Your task to perform on an android device: Open CNN.com Image 0: 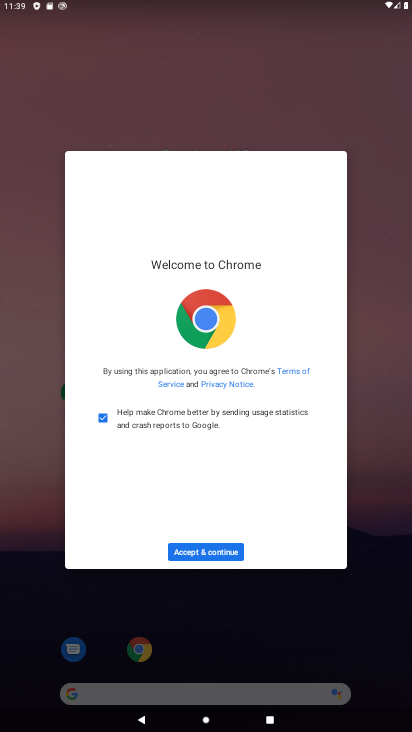
Step 0: click (197, 550)
Your task to perform on an android device: Open CNN.com Image 1: 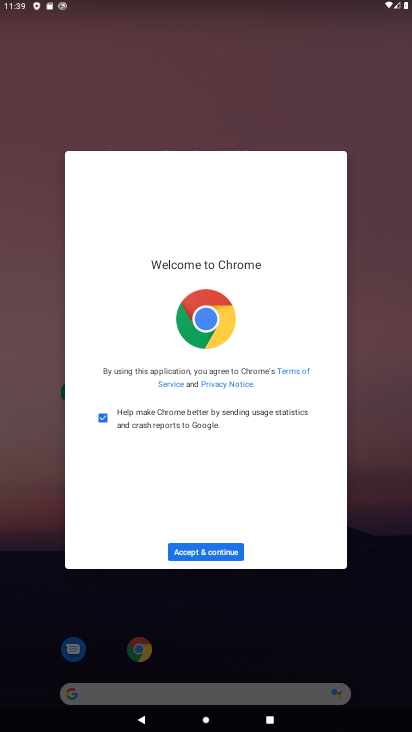
Step 1: click (199, 548)
Your task to perform on an android device: Open CNN.com Image 2: 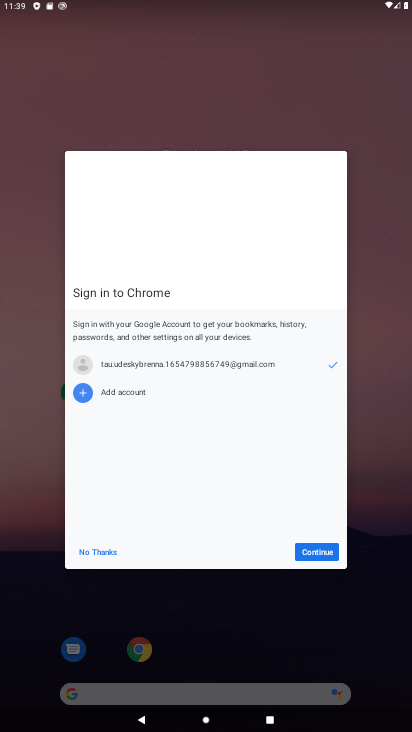
Step 2: click (104, 541)
Your task to perform on an android device: Open CNN.com Image 3: 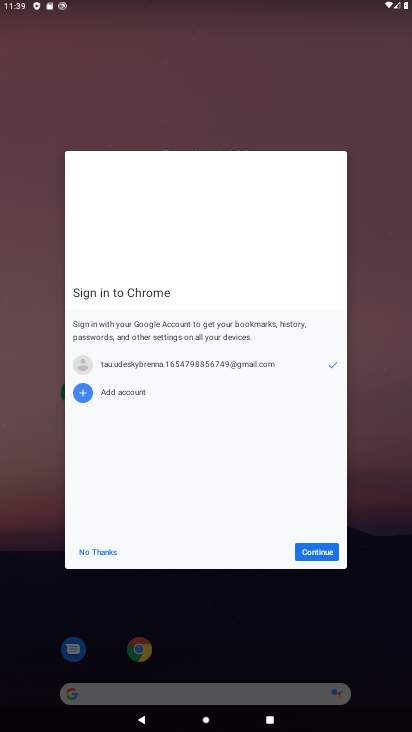
Step 3: click (102, 554)
Your task to perform on an android device: Open CNN.com Image 4: 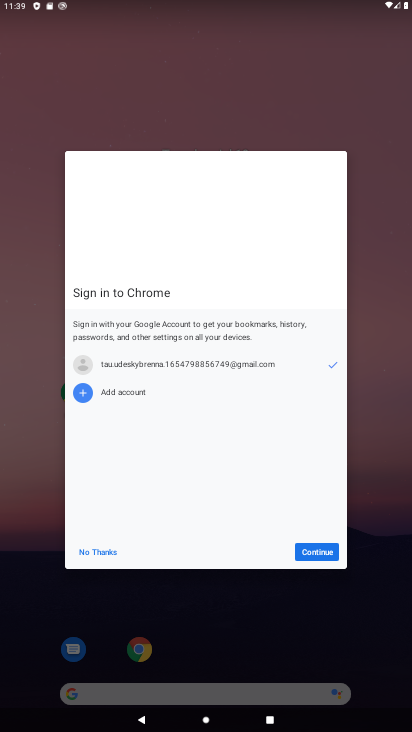
Step 4: click (104, 548)
Your task to perform on an android device: Open CNN.com Image 5: 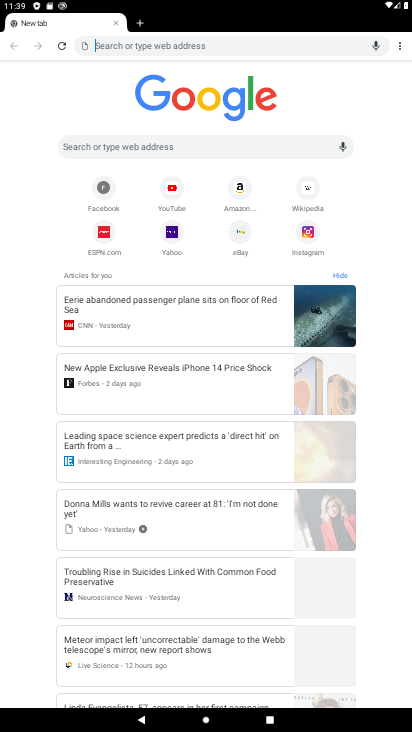
Step 5: click (112, 145)
Your task to perform on an android device: Open CNN.com Image 6: 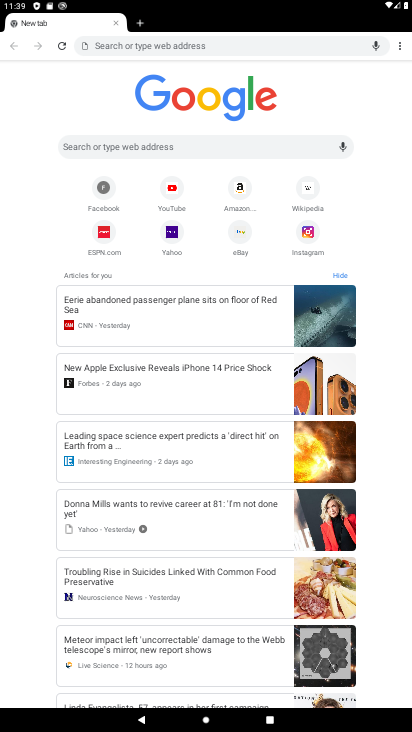
Step 6: click (109, 137)
Your task to perform on an android device: Open CNN.com Image 7: 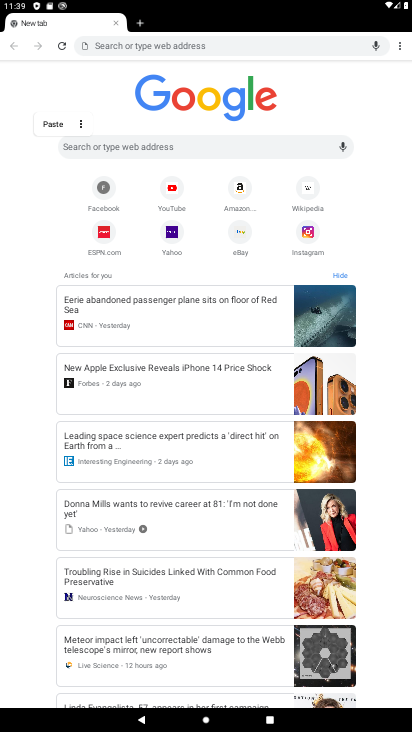
Step 7: type "CNN.com"
Your task to perform on an android device: Open CNN.com Image 8: 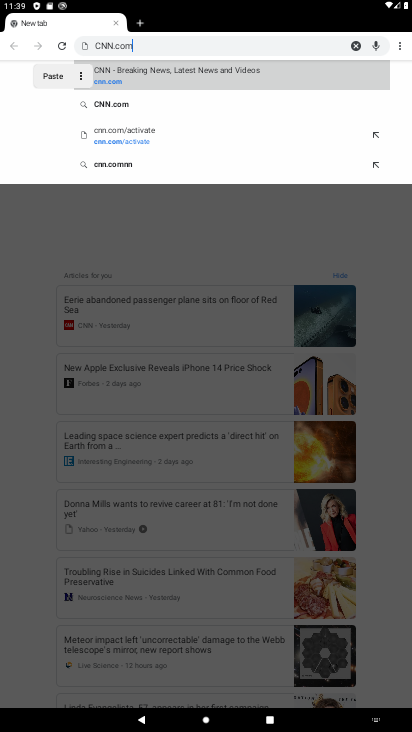
Step 8: click (97, 102)
Your task to perform on an android device: Open CNN.com Image 9: 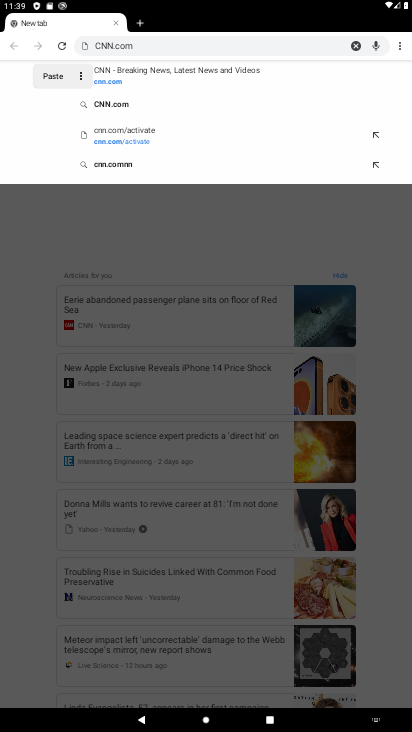
Step 9: task complete